Your task to perform on an android device: change text size in settings app Image 0: 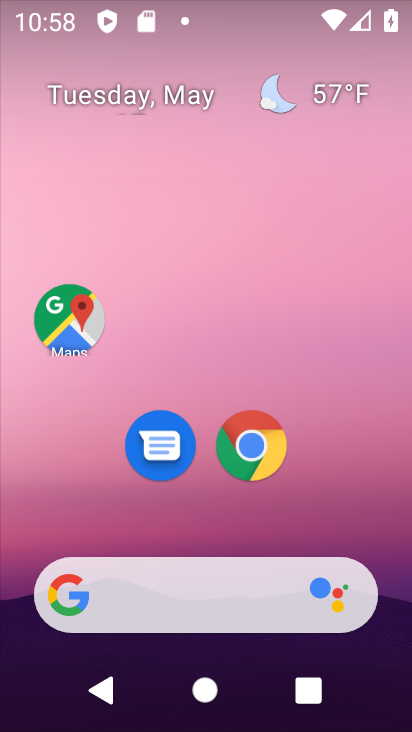
Step 0: drag from (368, 532) to (352, 167)
Your task to perform on an android device: change text size in settings app Image 1: 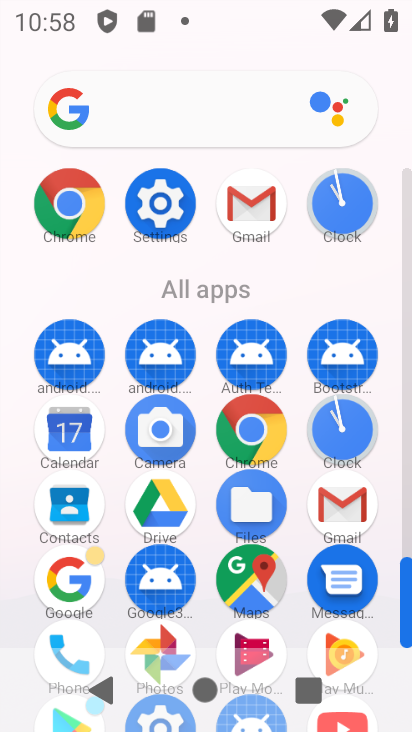
Step 1: click (172, 201)
Your task to perform on an android device: change text size in settings app Image 2: 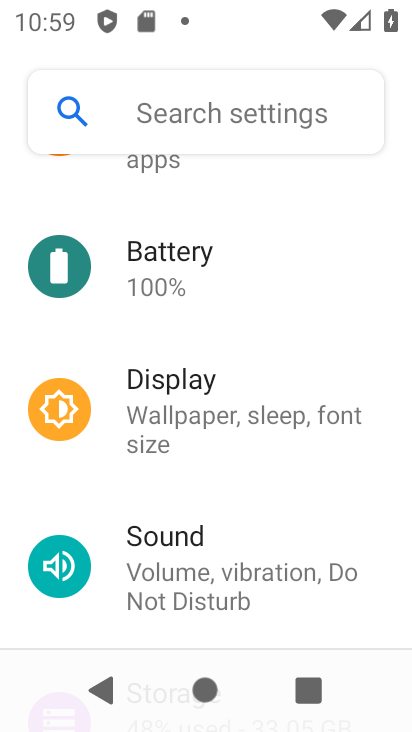
Step 2: drag from (341, 268) to (339, 473)
Your task to perform on an android device: change text size in settings app Image 3: 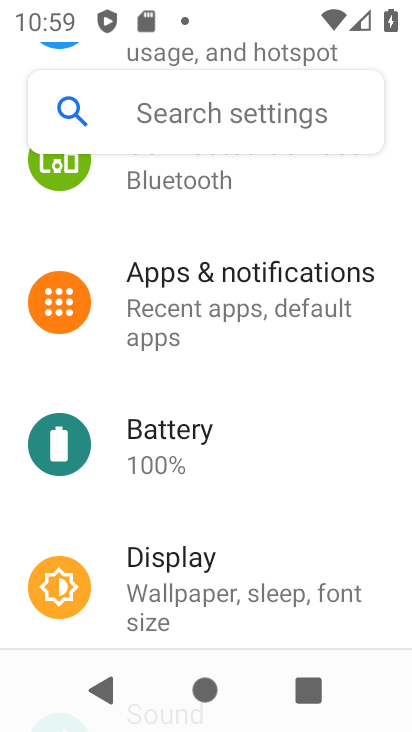
Step 3: drag from (339, 216) to (324, 462)
Your task to perform on an android device: change text size in settings app Image 4: 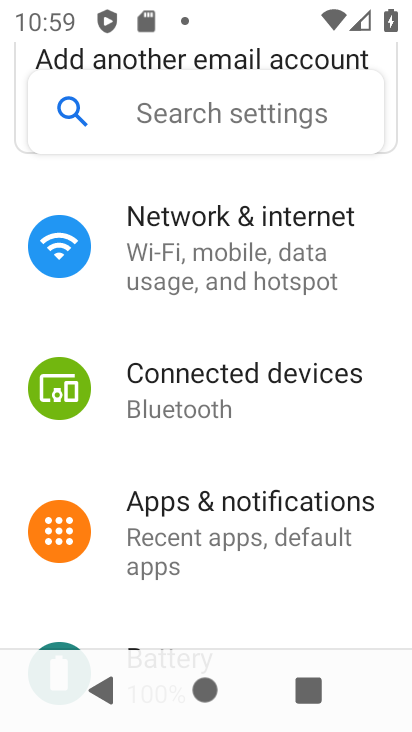
Step 4: drag from (364, 237) to (343, 447)
Your task to perform on an android device: change text size in settings app Image 5: 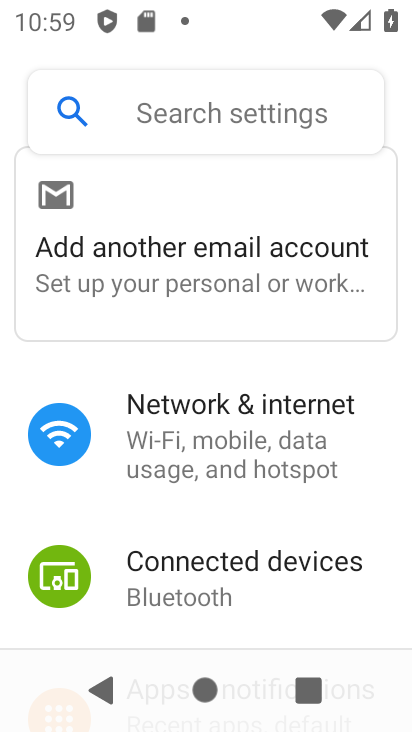
Step 5: drag from (326, 602) to (325, 380)
Your task to perform on an android device: change text size in settings app Image 6: 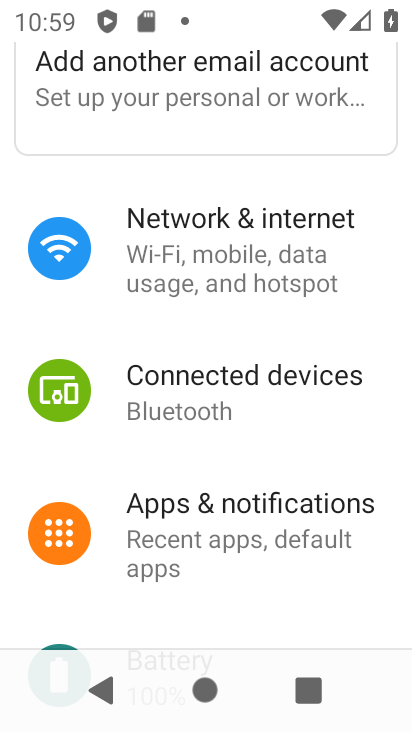
Step 6: drag from (340, 605) to (322, 412)
Your task to perform on an android device: change text size in settings app Image 7: 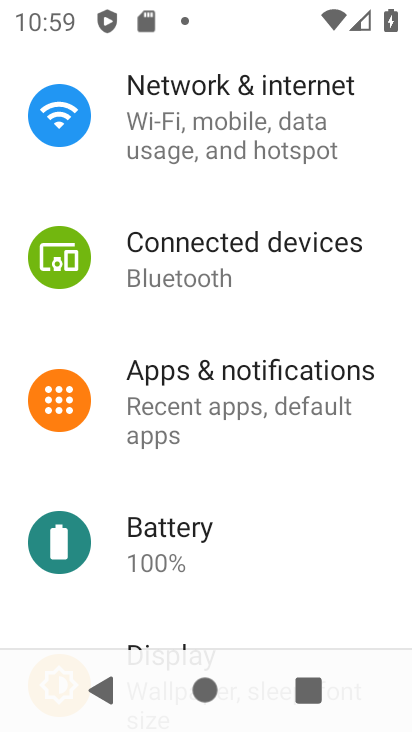
Step 7: drag from (321, 596) to (320, 411)
Your task to perform on an android device: change text size in settings app Image 8: 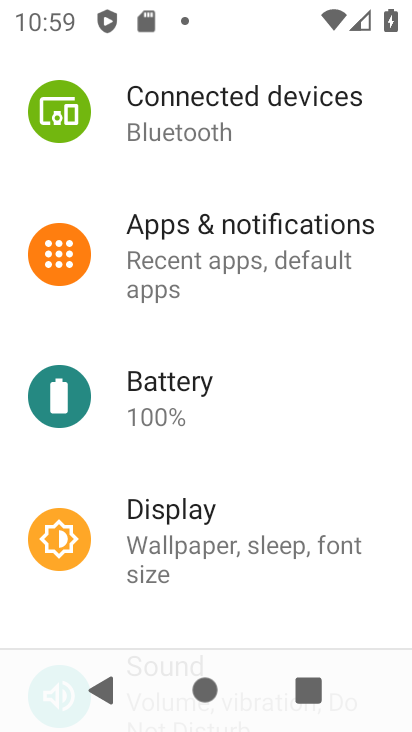
Step 8: drag from (315, 614) to (323, 419)
Your task to perform on an android device: change text size in settings app Image 9: 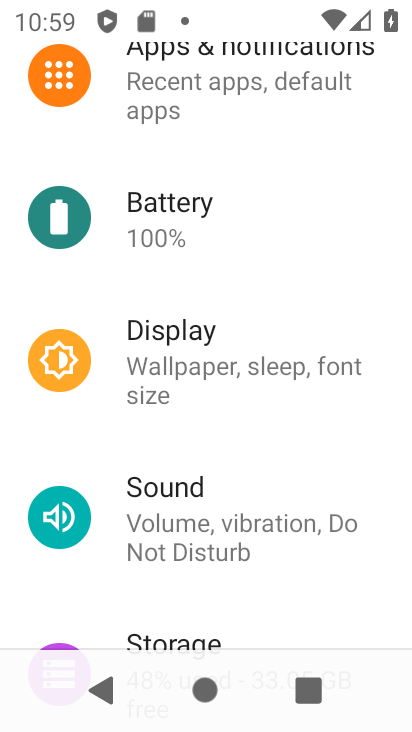
Step 9: drag from (326, 604) to (333, 445)
Your task to perform on an android device: change text size in settings app Image 10: 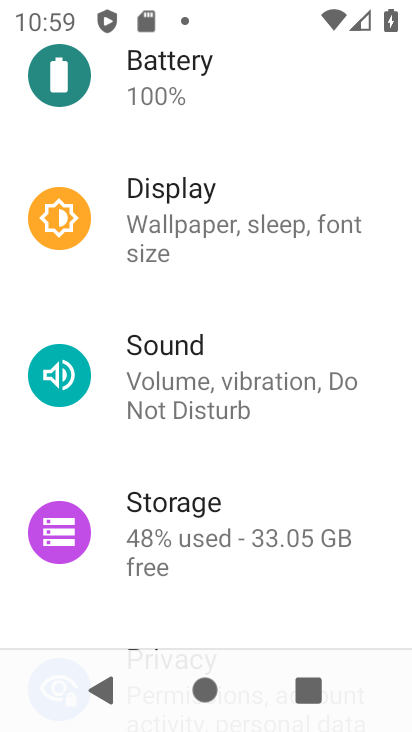
Step 10: drag from (333, 614) to (331, 481)
Your task to perform on an android device: change text size in settings app Image 11: 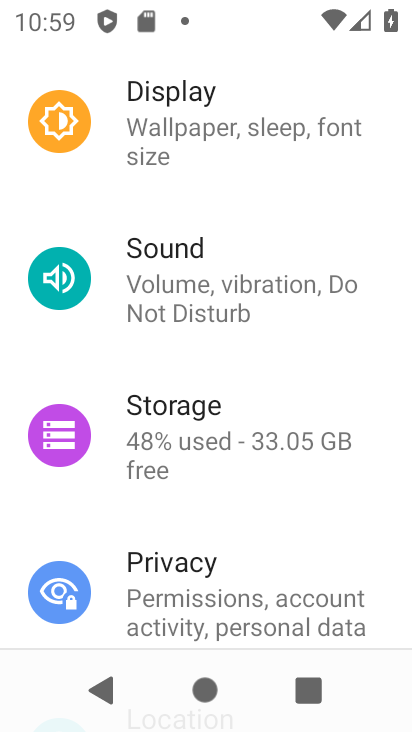
Step 11: drag from (333, 581) to (327, 474)
Your task to perform on an android device: change text size in settings app Image 12: 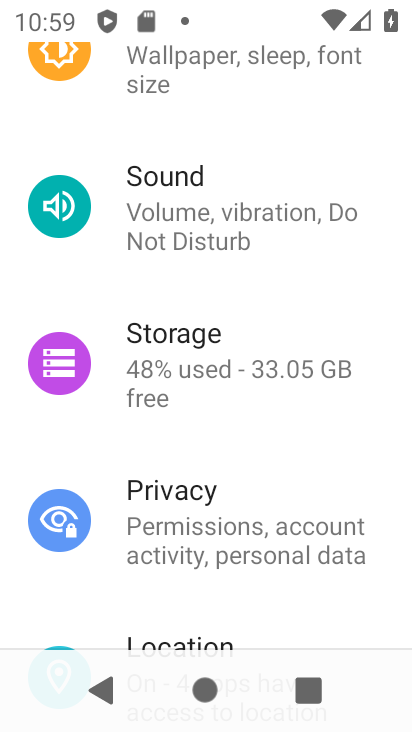
Step 12: drag from (319, 607) to (318, 469)
Your task to perform on an android device: change text size in settings app Image 13: 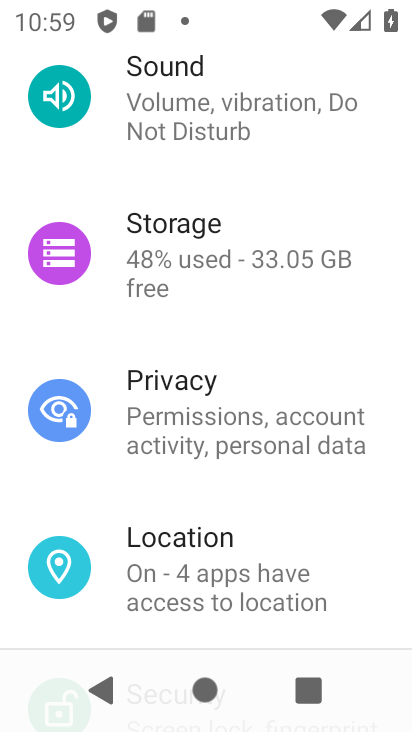
Step 13: drag from (326, 324) to (324, 526)
Your task to perform on an android device: change text size in settings app Image 14: 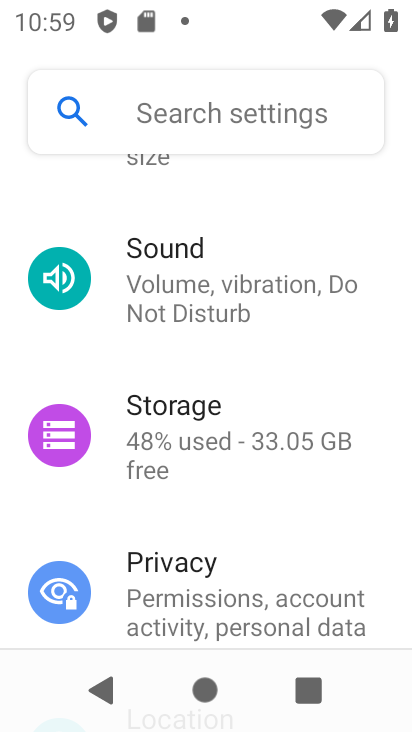
Step 14: drag from (358, 330) to (340, 537)
Your task to perform on an android device: change text size in settings app Image 15: 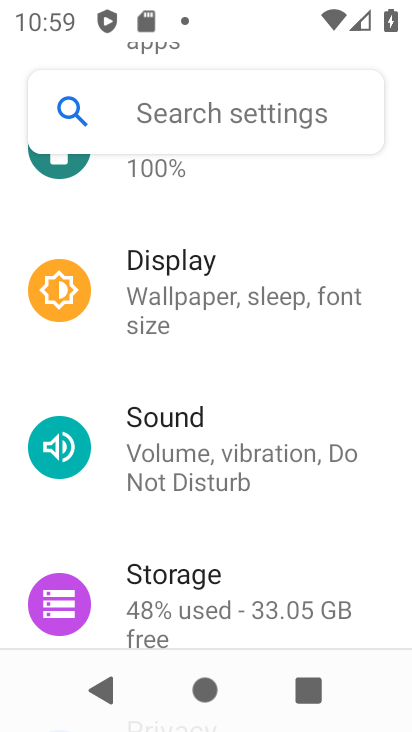
Step 15: drag from (354, 327) to (330, 523)
Your task to perform on an android device: change text size in settings app Image 16: 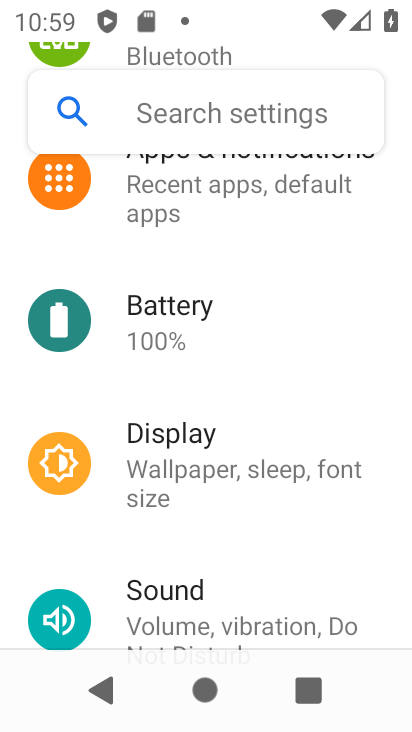
Step 16: click (258, 476)
Your task to perform on an android device: change text size in settings app Image 17: 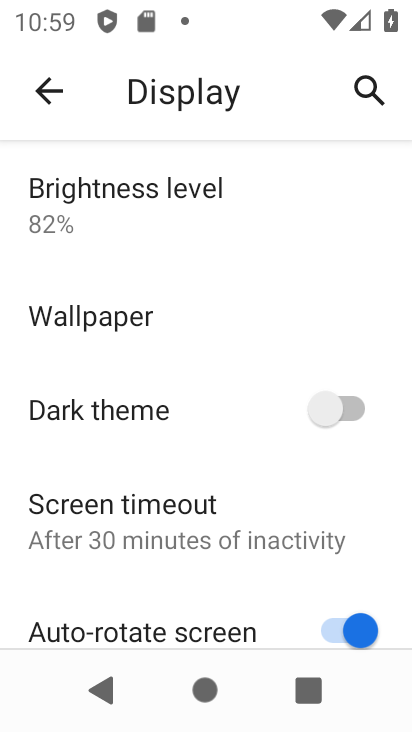
Step 17: drag from (257, 594) to (261, 381)
Your task to perform on an android device: change text size in settings app Image 18: 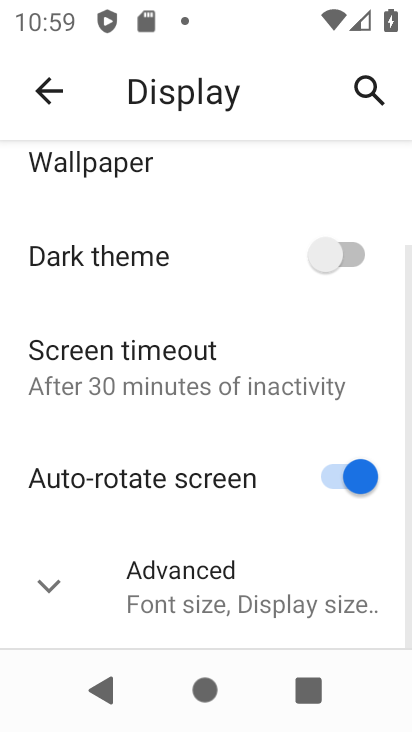
Step 18: click (251, 597)
Your task to perform on an android device: change text size in settings app Image 19: 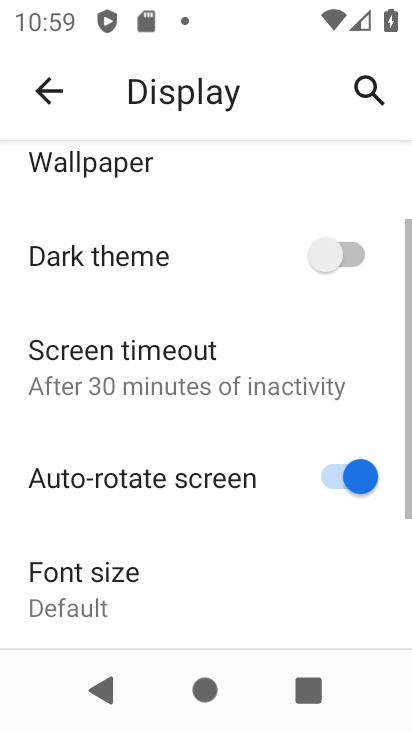
Step 19: drag from (255, 584) to (256, 411)
Your task to perform on an android device: change text size in settings app Image 20: 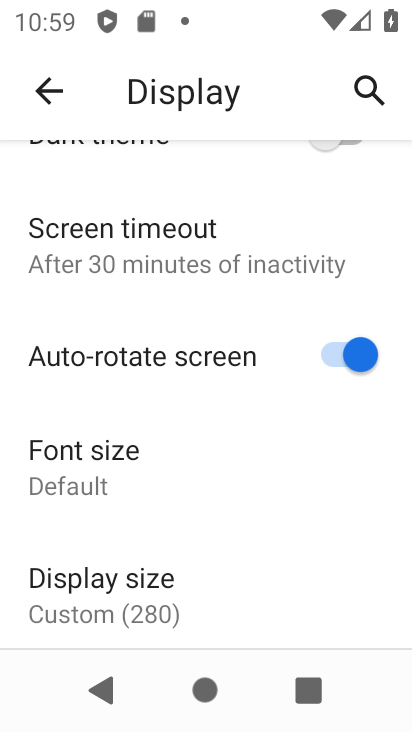
Step 20: drag from (239, 574) to (230, 377)
Your task to perform on an android device: change text size in settings app Image 21: 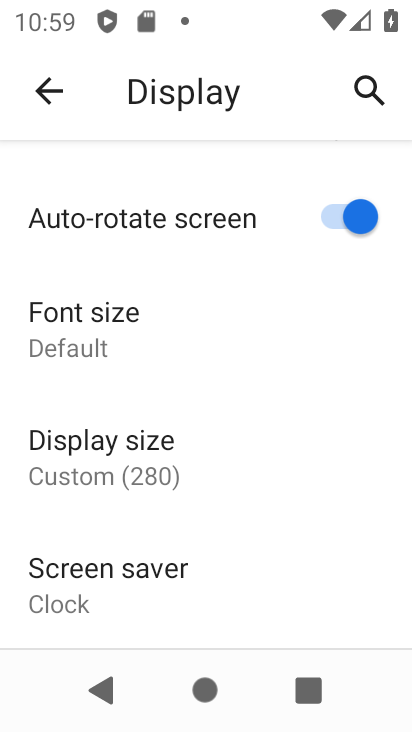
Step 21: click (97, 330)
Your task to perform on an android device: change text size in settings app Image 22: 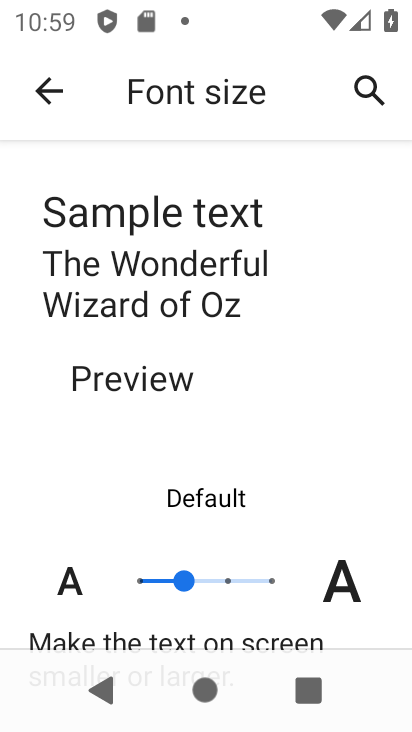
Step 22: click (228, 581)
Your task to perform on an android device: change text size in settings app Image 23: 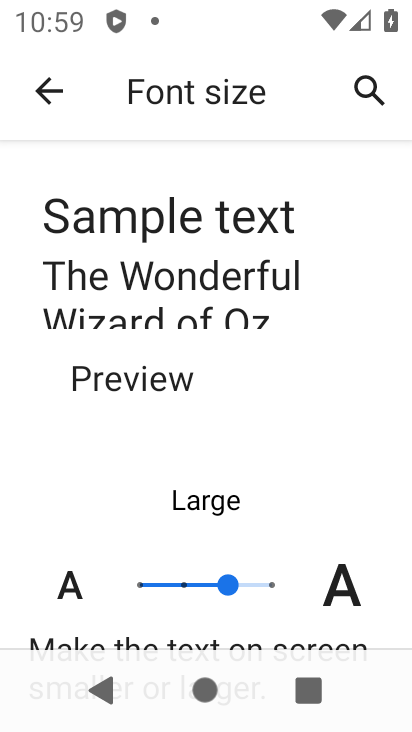
Step 23: task complete